Your task to perform on an android device: turn on translation in the chrome app Image 0: 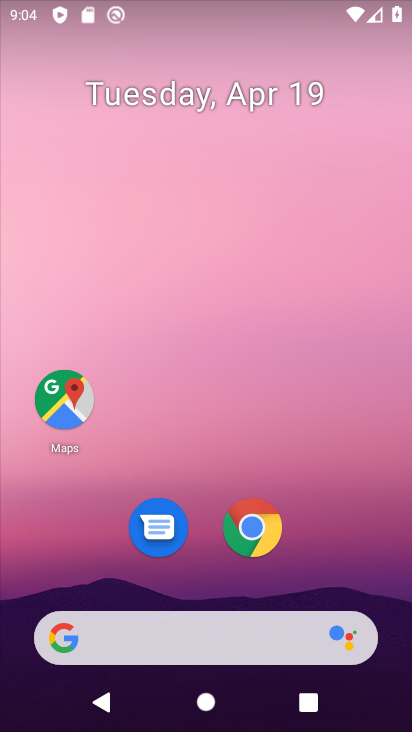
Step 0: drag from (234, 679) to (214, 69)
Your task to perform on an android device: turn on translation in the chrome app Image 1: 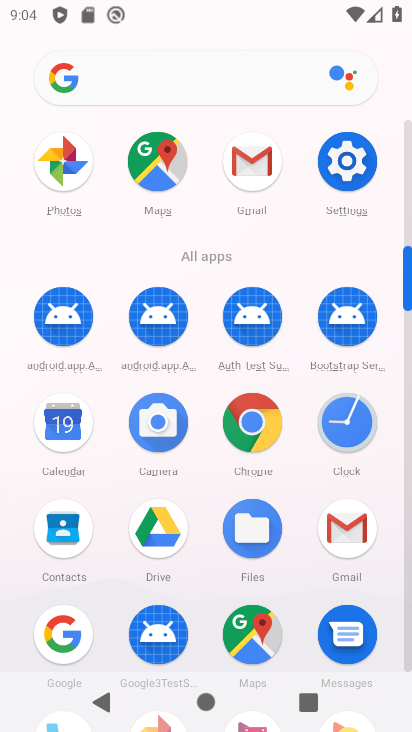
Step 1: click (261, 428)
Your task to perform on an android device: turn on translation in the chrome app Image 2: 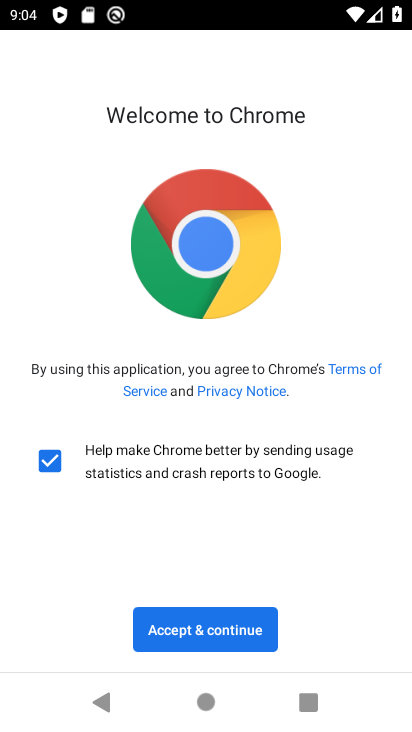
Step 2: click (209, 630)
Your task to perform on an android device: turn on translation in the chrome app Image 3: 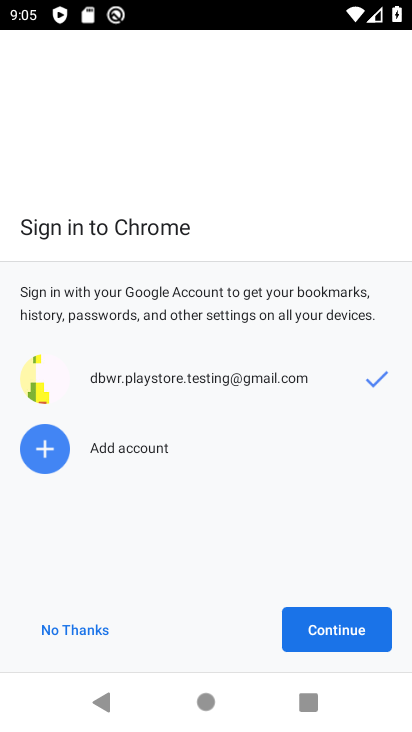
Step 3: click (336, 639)
Your task to perform on an android device: turn on translation in the chrome app Image 4: 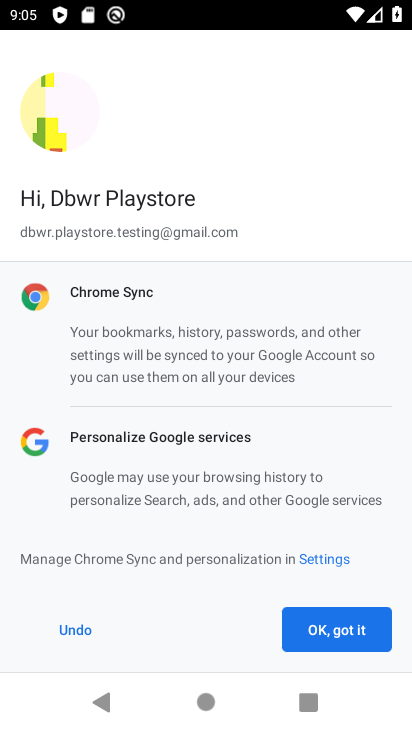
Step 4: click (332, 633)
Your task to perform on an android device: turn on translation in the chrome app Image 5: 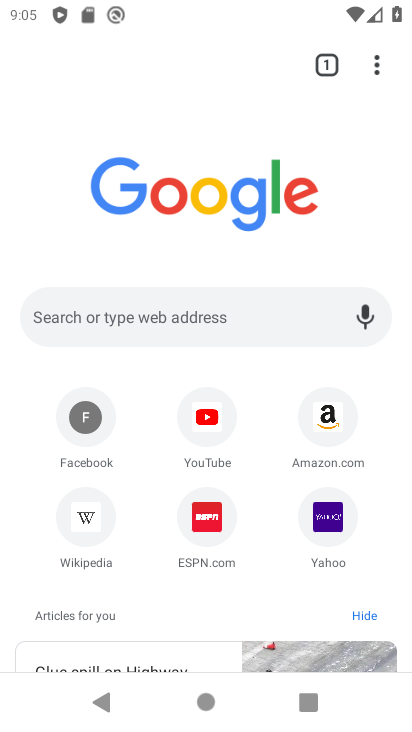
Step 5: click (374, 73)
Your task to perform on an android device: turn on translation in the chrome app Image 6: 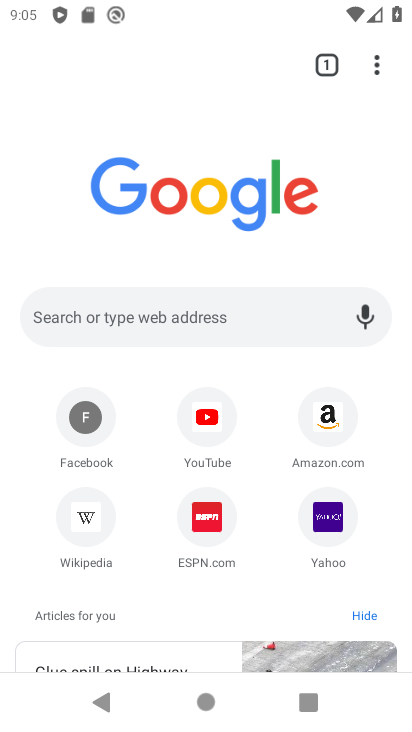
Step 6: click (374, 66)
Your task to perform on an android device: turn on translation in the chrome app Image 7: 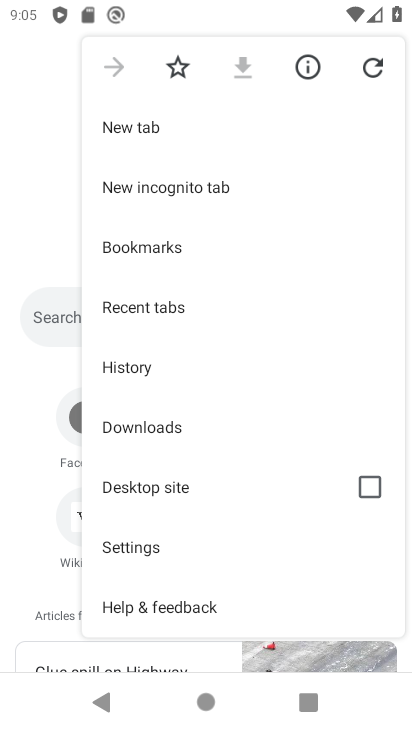
Step 7: click (150, 544)
Your task to perform on an android device: turn on translation in the chrome app Image 8: 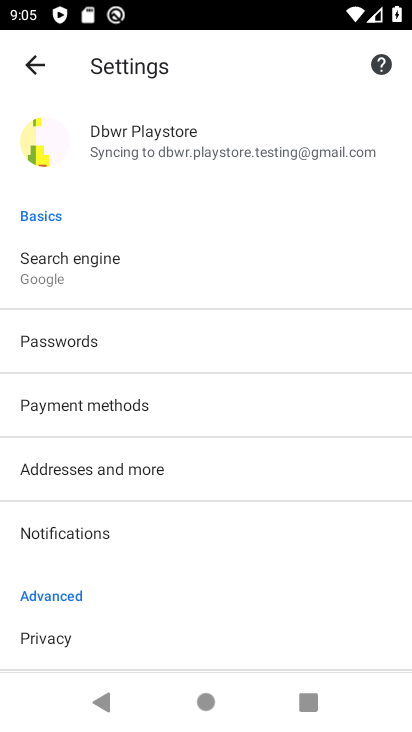
Step 8: drag from (129, 601) to (164, 346)
Your task to perform on an android device: turn on translation in the chrome app Image 9: 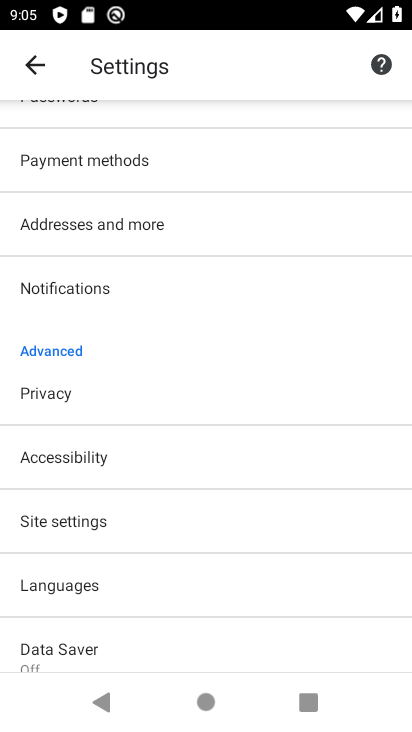
Step 9: click (66, 592)
Your task to perform on an android device: turn on translation in the chrome app Image 10: 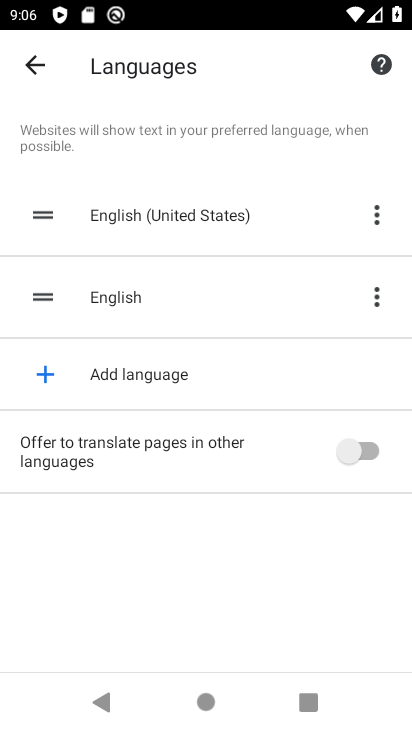
Step 10: click (353, 443)
Your task to perform on an android device: turn on translation in the chrome app Image 11: 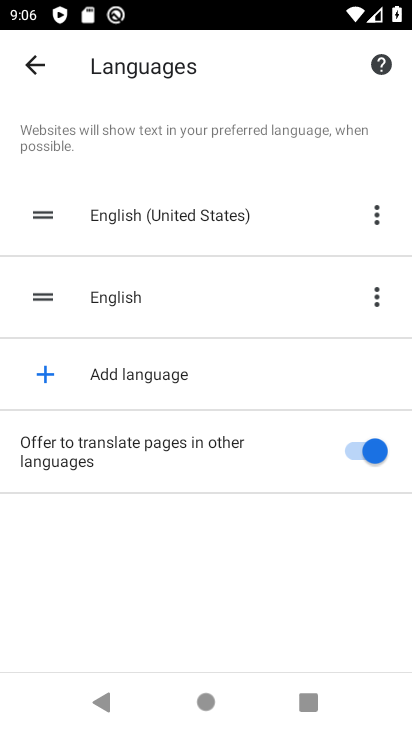
Step 11: task complete